Your task to perform on an android device: install app "PUBG MOBILE" Image 0: 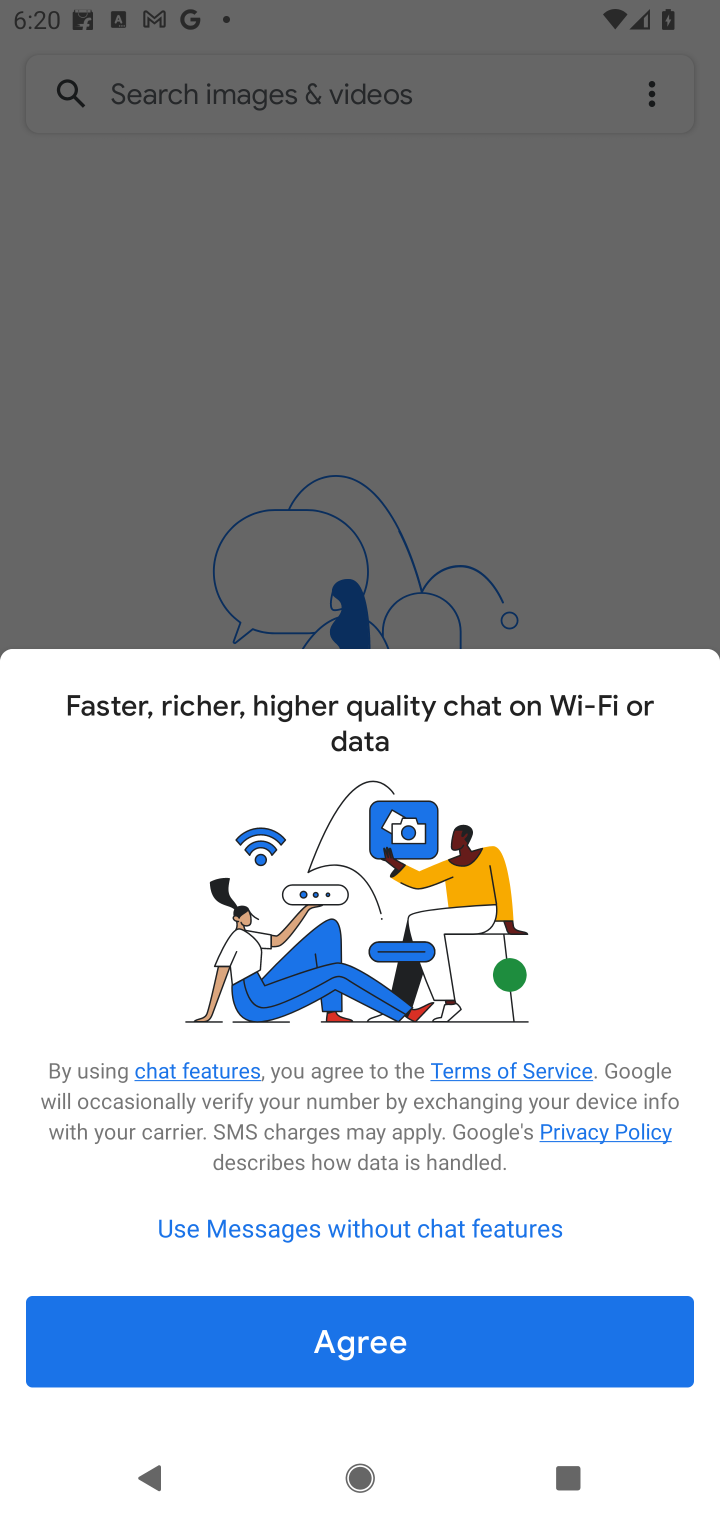
Step 0: press home button
Your task to perform on an android device: install app "PUBG MOBILE" Image 1: 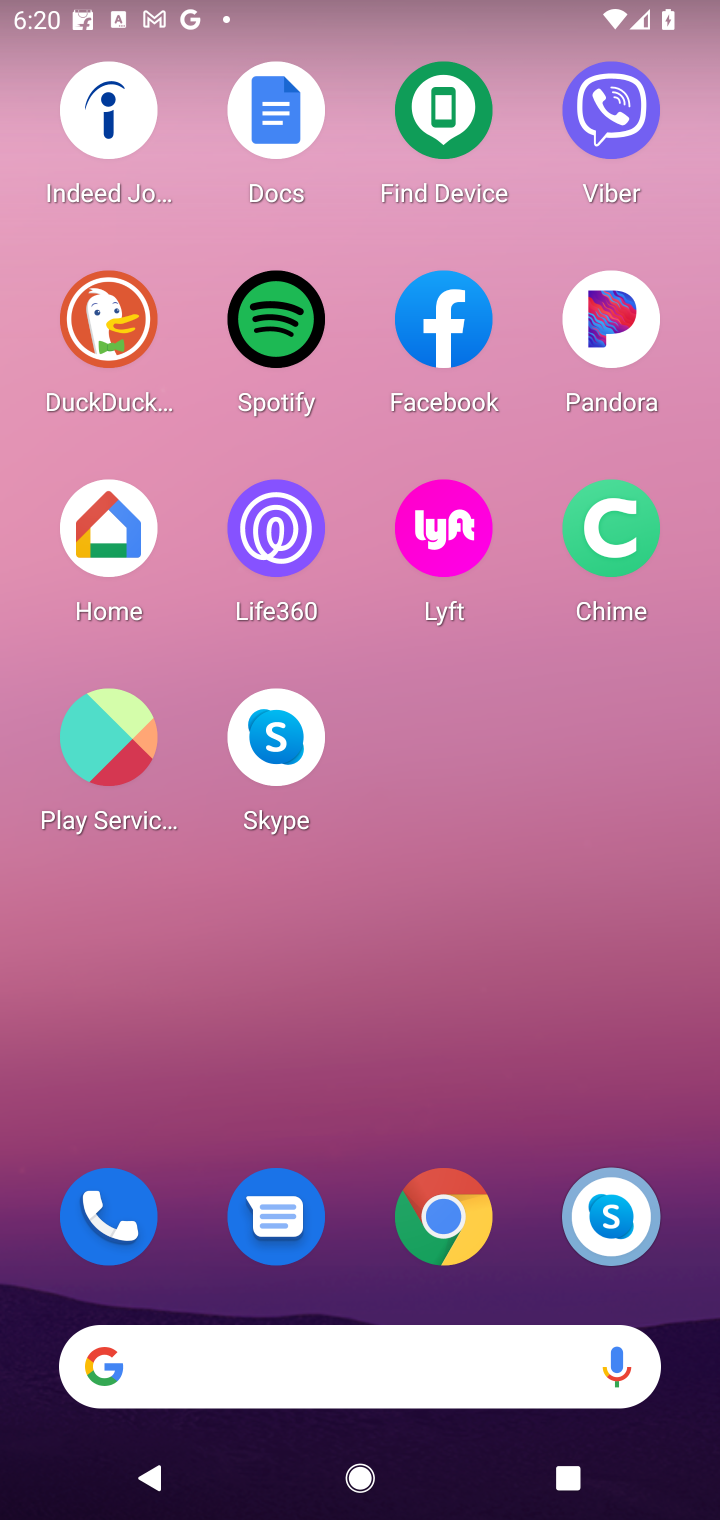
Step 1: drag from (355, 1101) to (418, 241)
Your task to perform on an android device: install app "PUBG MOBILE" Image 2: 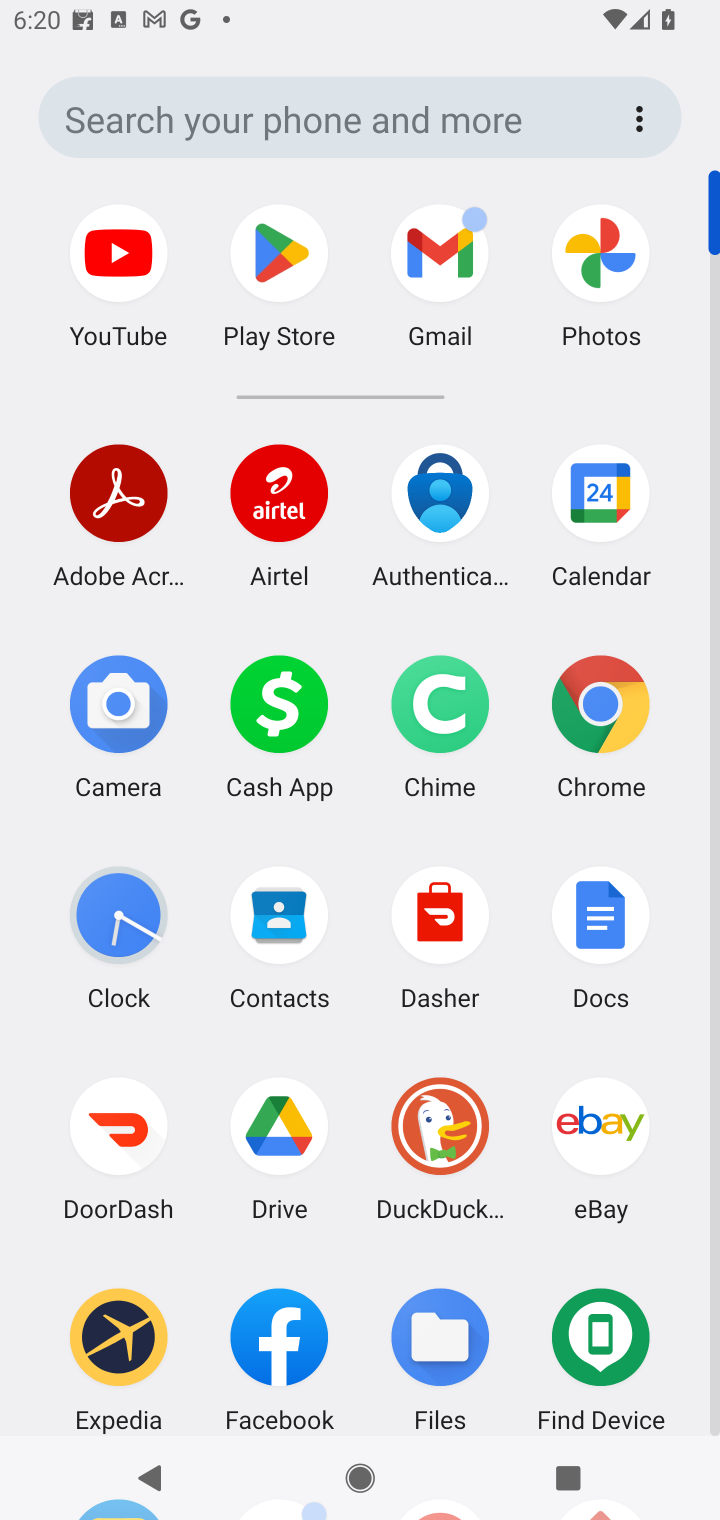
Step 2: click (277, 281)
Your task to perform on an android device: install app "PUBG MOBILE" Image 3: 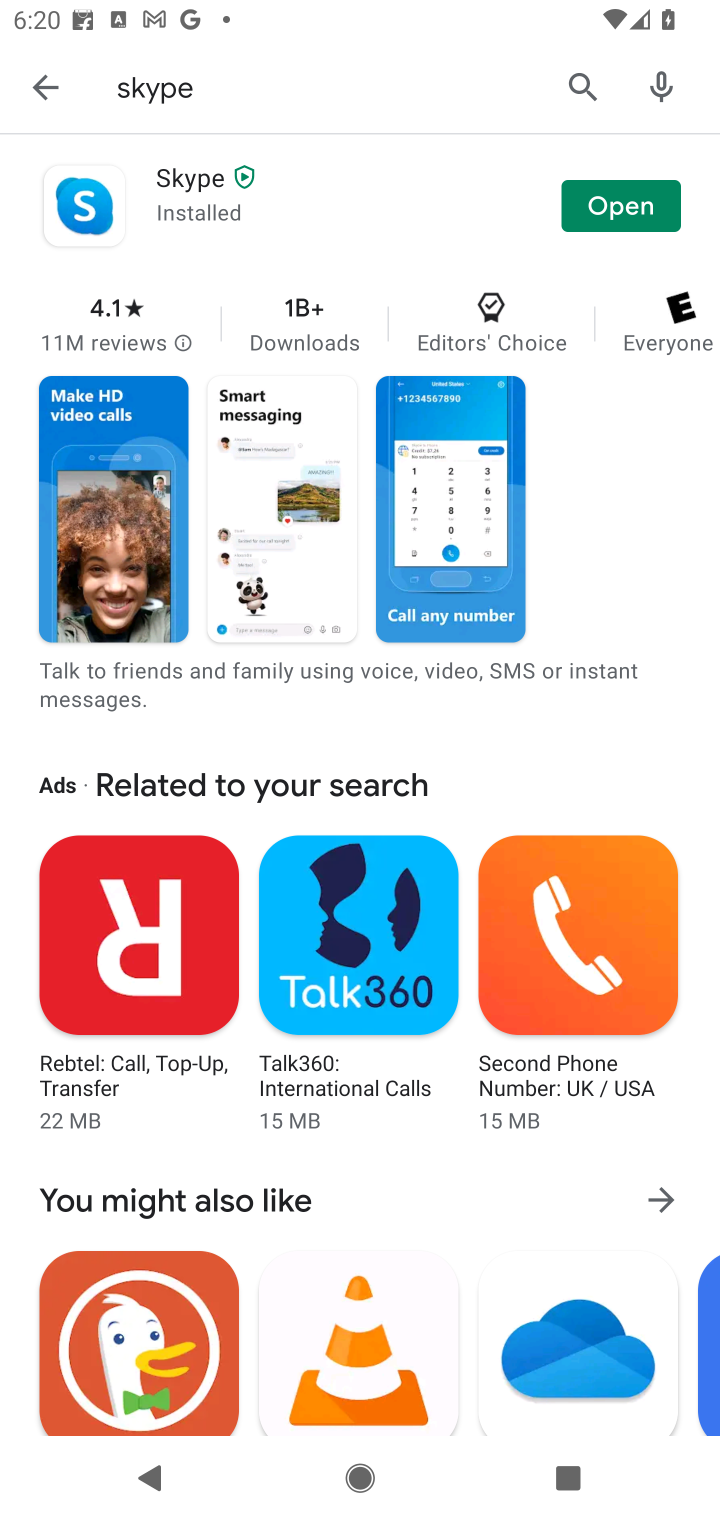
Step 3: click (568, 78)
Your task to perform on an android device: install app "PUBG MOBILE" Image 4: 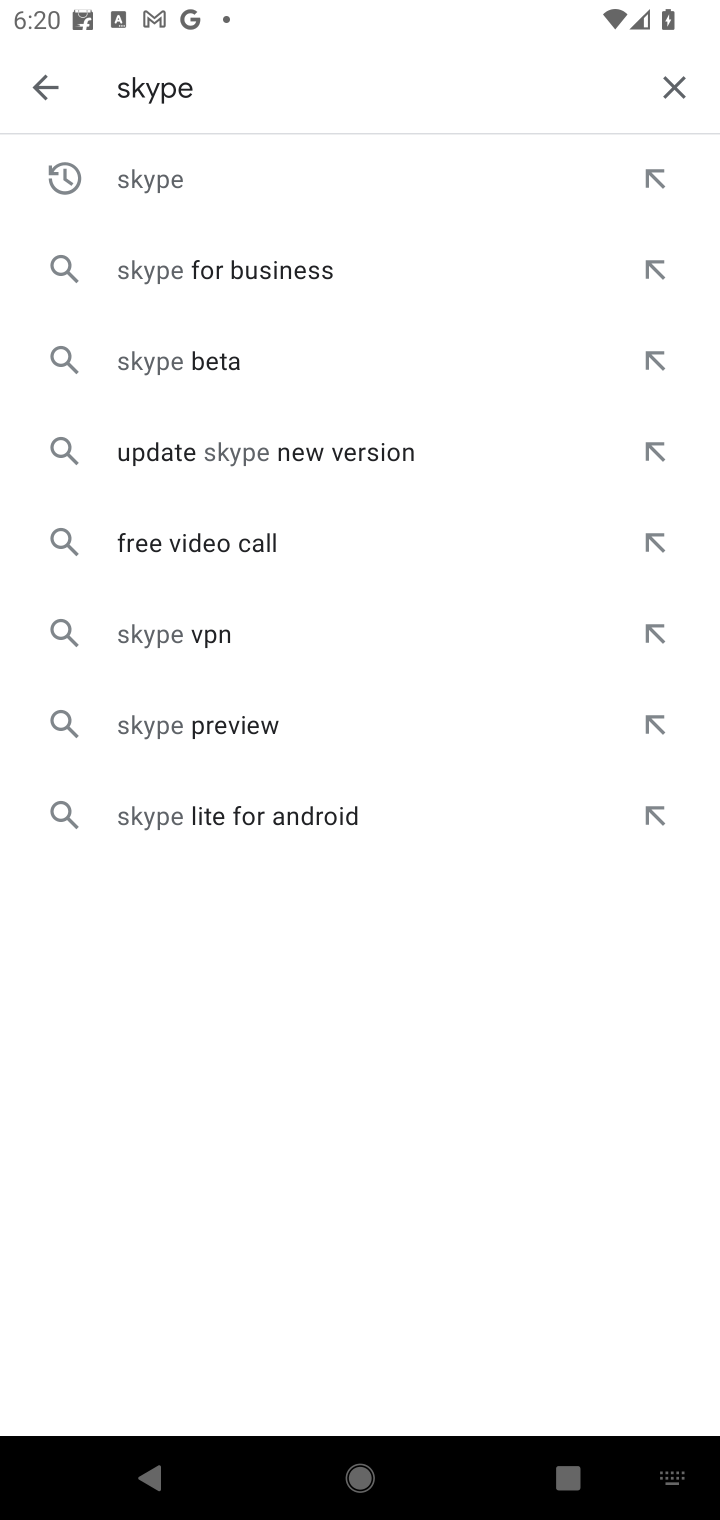
Step 4: click (674, 81)
Your task to perform on an android device: install app "PUBG MOBILE" Image 5: 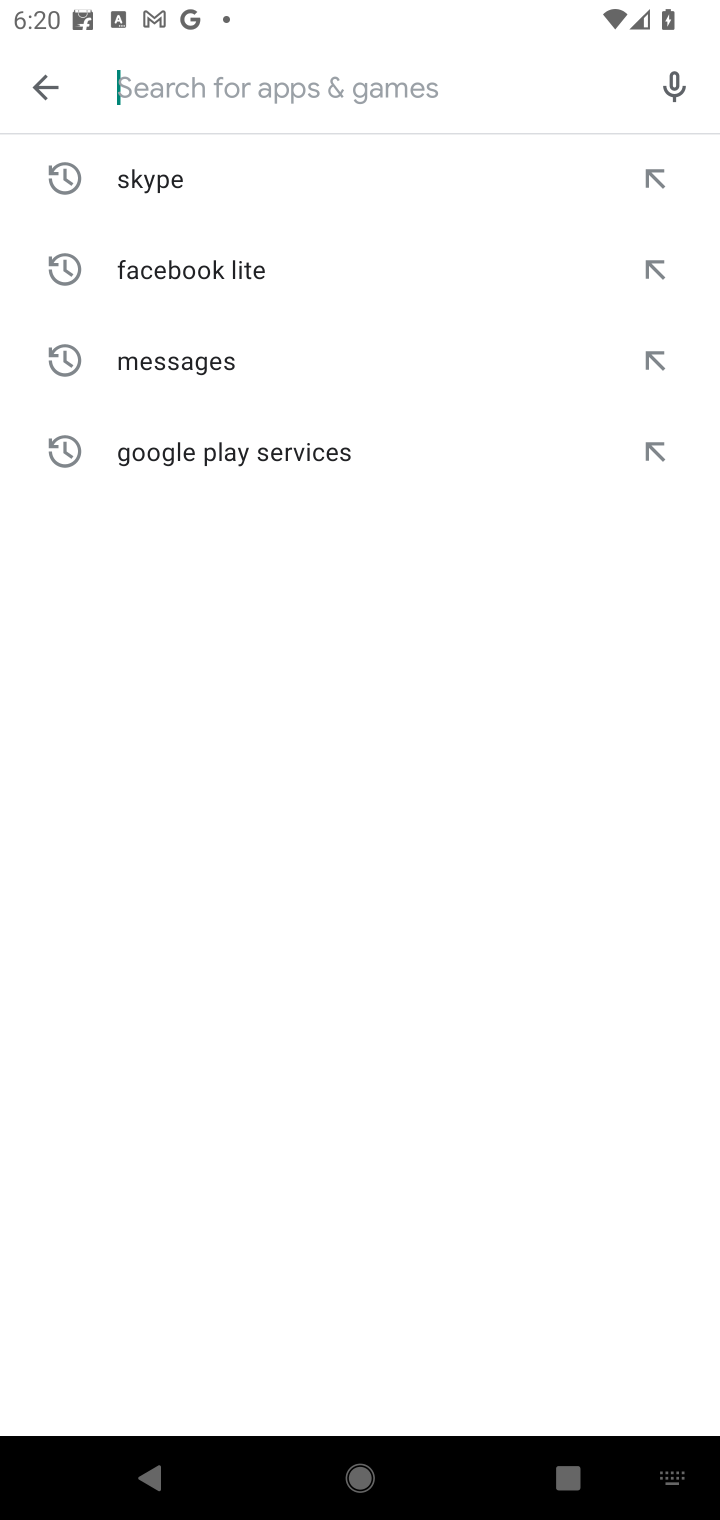
Step 5: type "PUBG MOBILE"
Your task to perform on an android device: install app "PUBG MOBILE" Image 6: 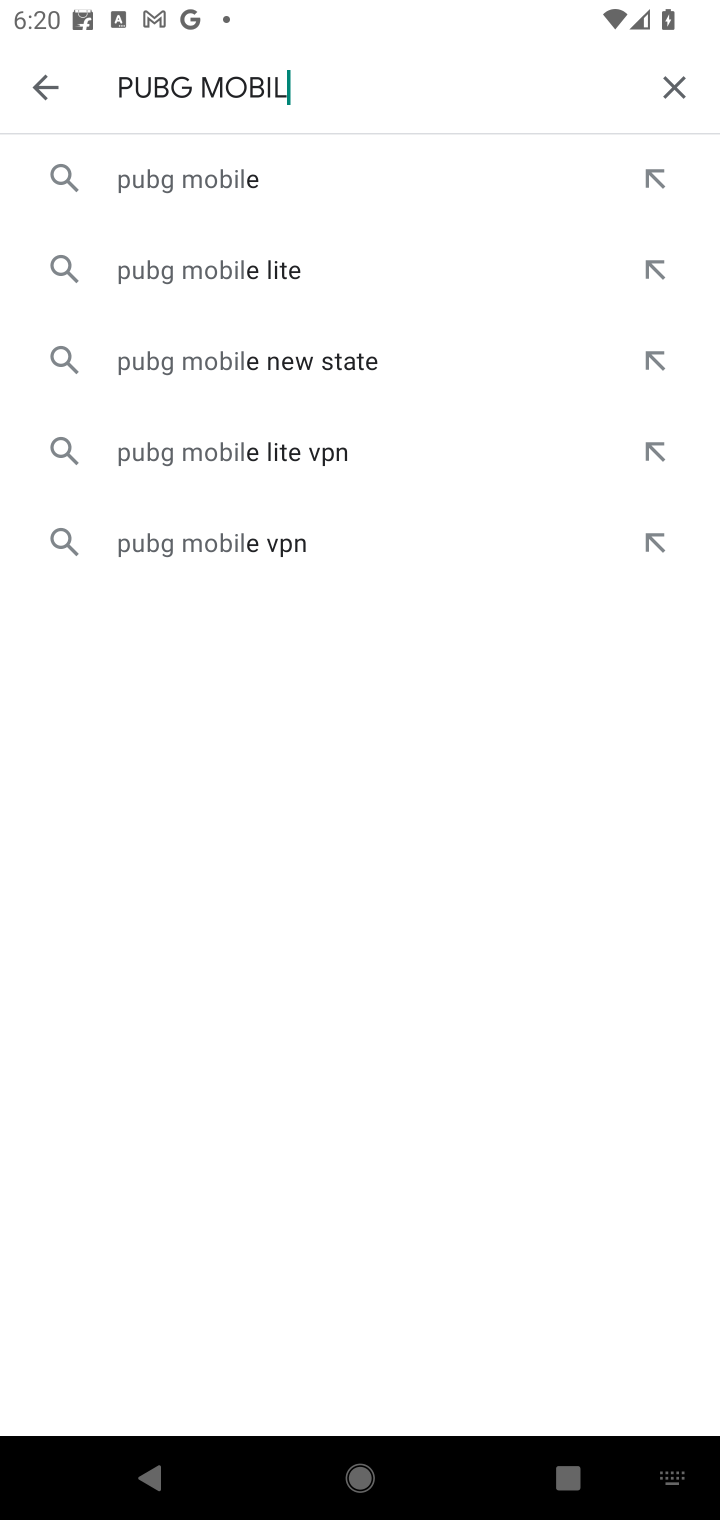
Step 6: type ""
Your task to perform on an android device: install app "PUBG MOBILE" Image 7: 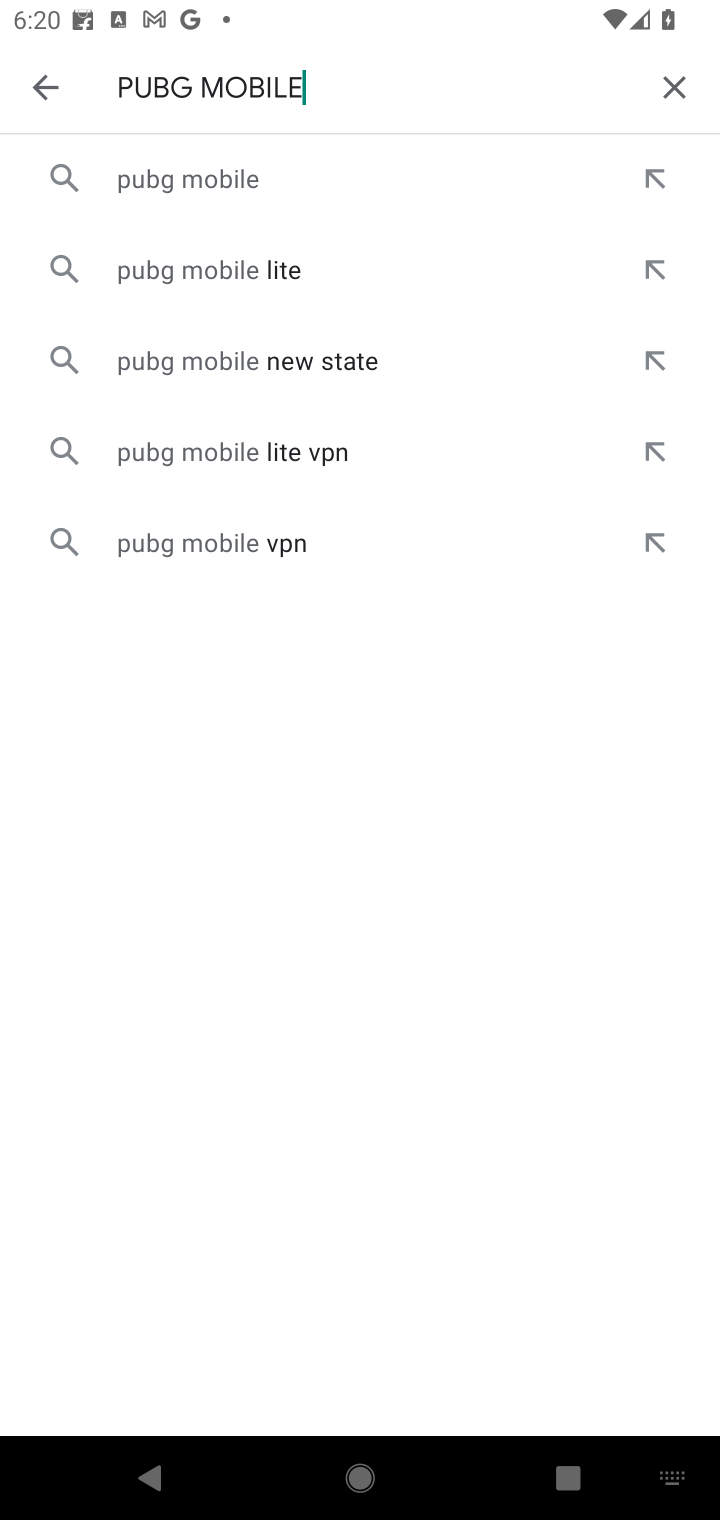
Step 7: click (361, 167)
Your task to perform on an android device: install app "PUBG MOBILE" Image 8: 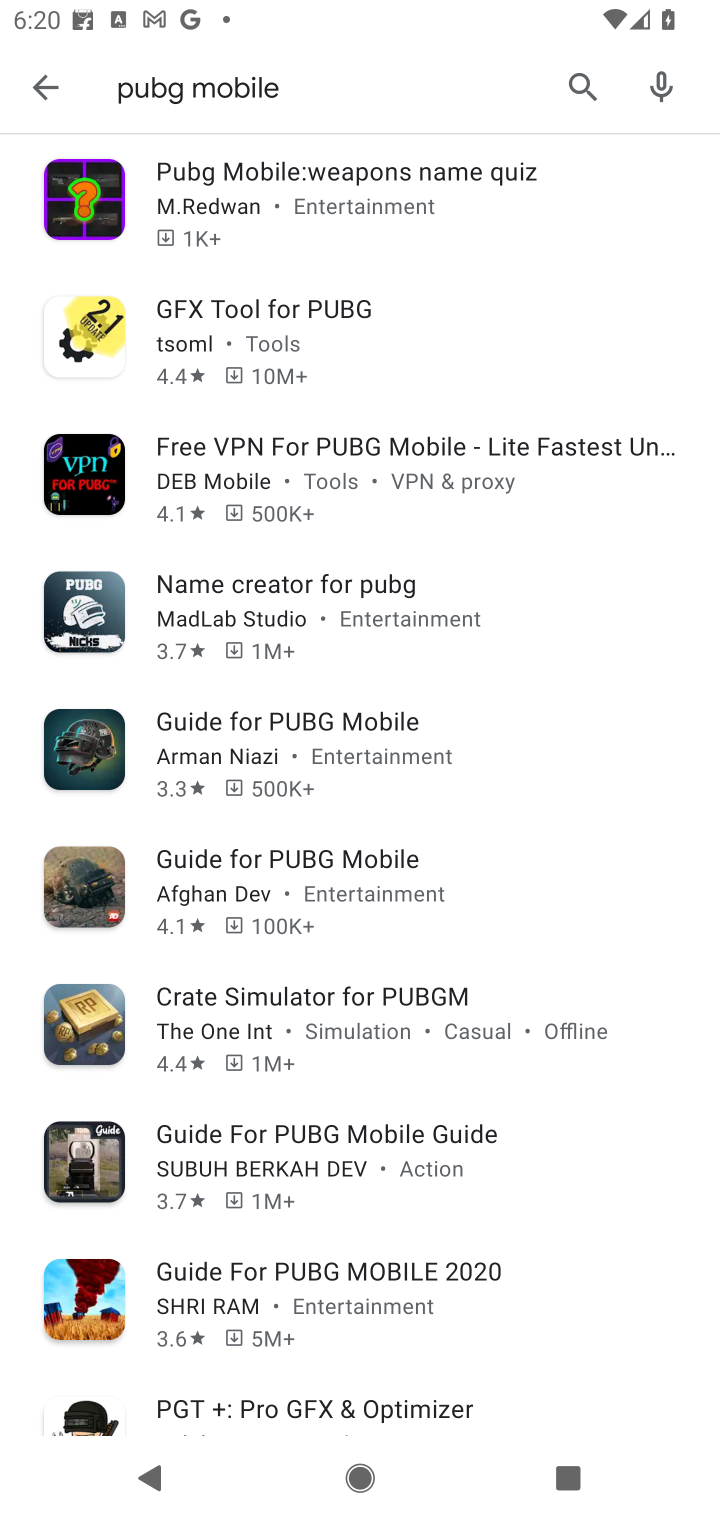
Step 8: task complete